Your task to perform on an android device: clear history in the chrome app Image 0: 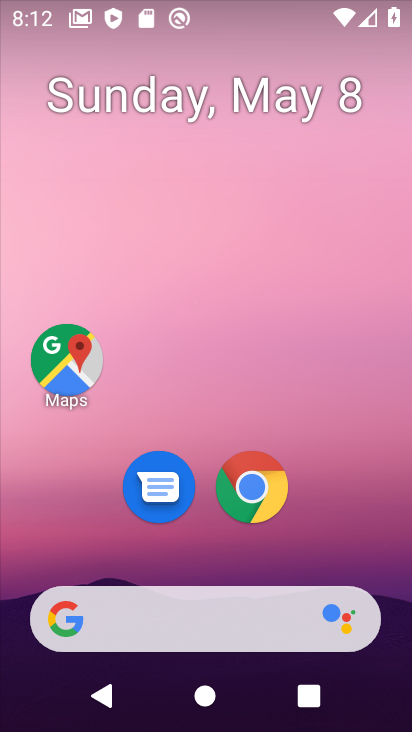
Step 0: click (276, 465)
Your task to perform on an android device: clear history in the chrome app Image 1: 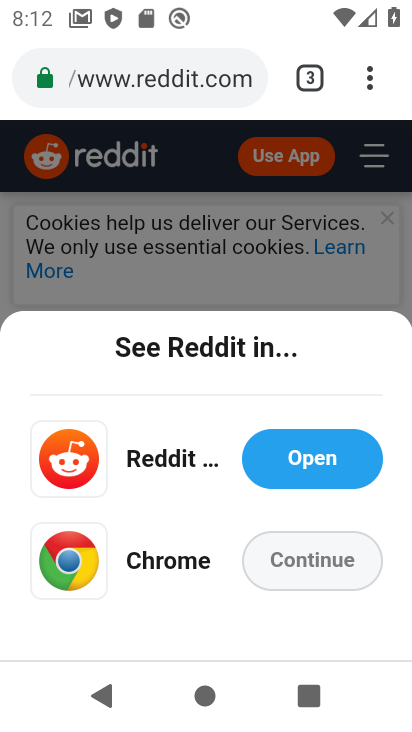
Step 1: click (164, 557)
Your task to perform on an android device: clear history in the chrome app Image 2: 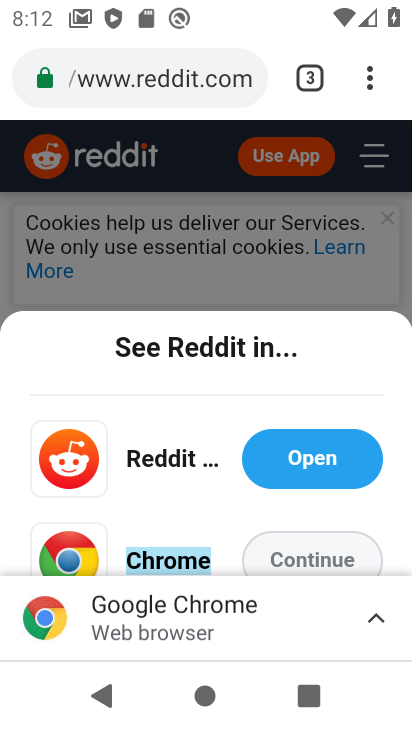
Step 2: click (284, 545)
Your task to perform on an android device: clear history in the chrome app Image 3: 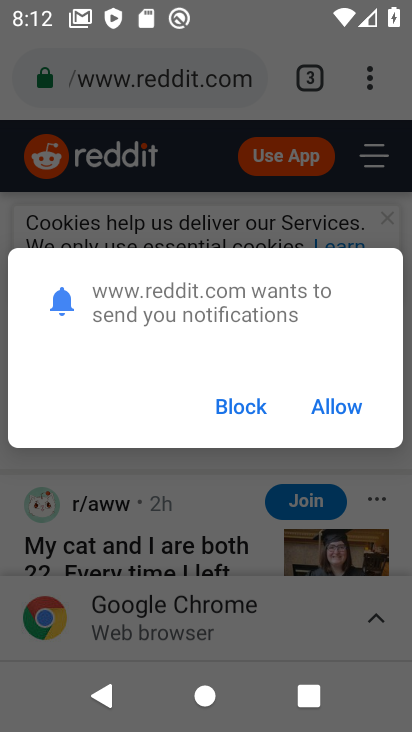
Step 3: click (340, 415)
Your task to perform on an android device: clear history in the chrome app Image 4: 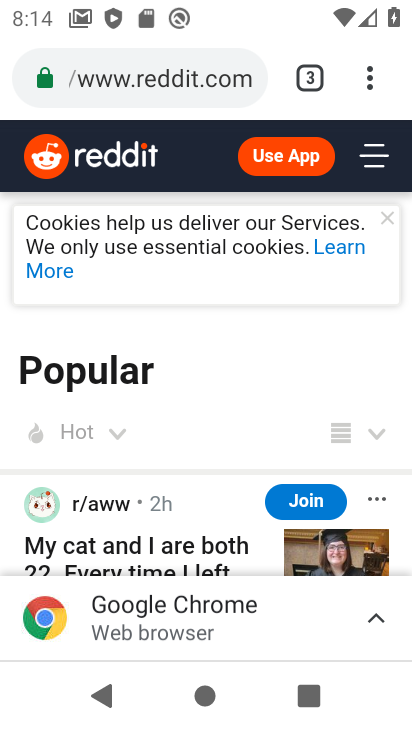
Step 4: click (358, 75)
Your task to perform on an android device: clear history in the chrome app Image 5: 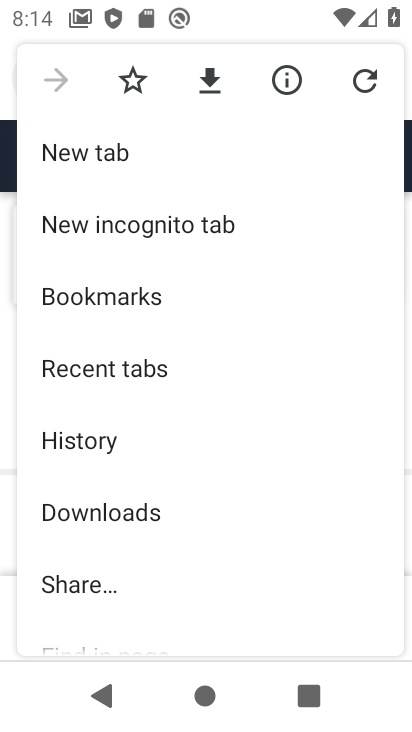
Step 5: click (207, 442)
Your task to perform on an android device: clear history in the chrome app Image 6: 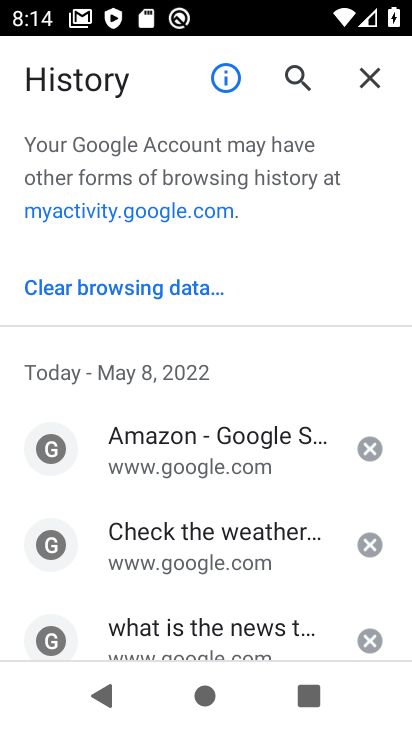
Step 6: click (163, 292)
Your task to perform on an android device: clear history in the chrome app Image 7: 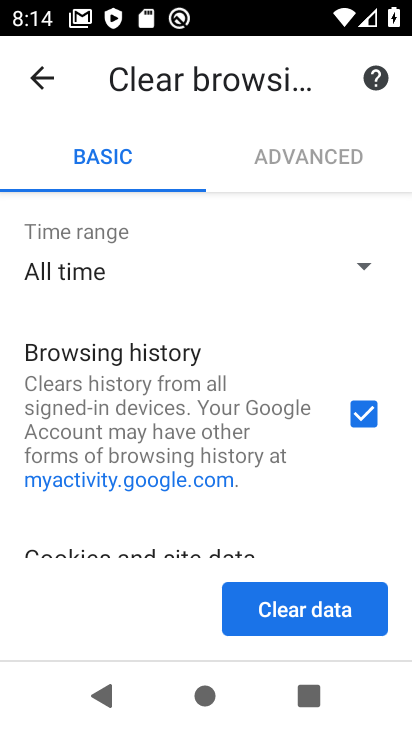
Step 7: click (276, 596)
Your task to perform on an android device: clear history in the chrome app Image 8: 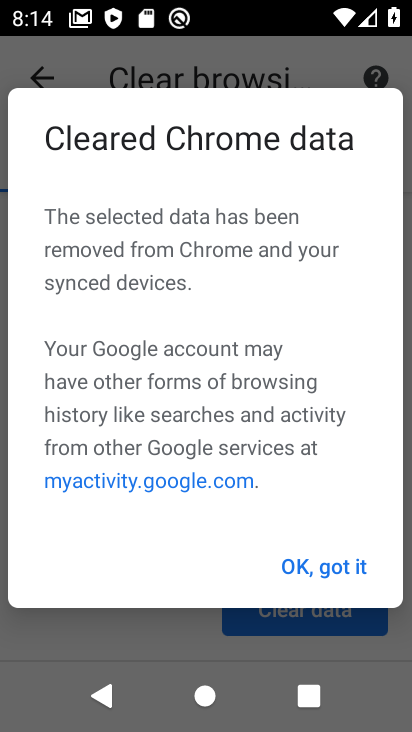
Step 8: click (314, 572)
Your task to perform on an android device: clear history in the chrome app Image 9: 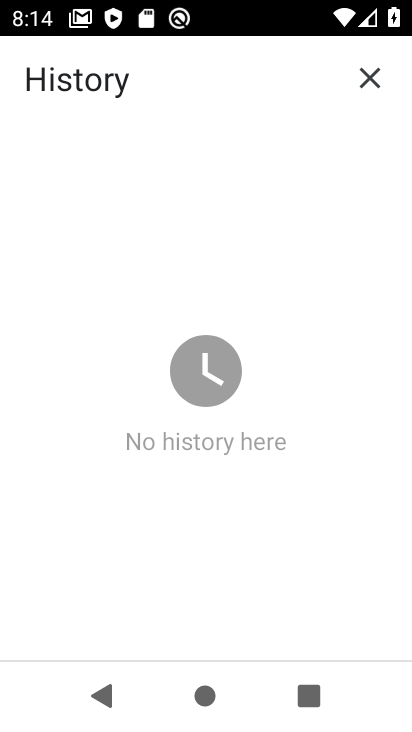
Step 9: task complete